Your task to perform on an android device: Empty the shopping cart on ebay.com. Add macbook air to the cart on ebay.com, then select checkout. Image 0: 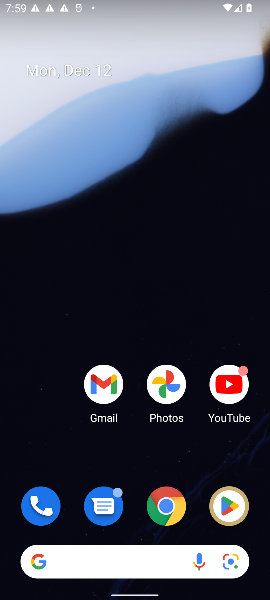
Step 0: click (129, 558)
Your task to perform on an android device: Empty the shopping cart on ebay.com. Add macbook air to the cart on ebay.com, then select checkout. Image 1: 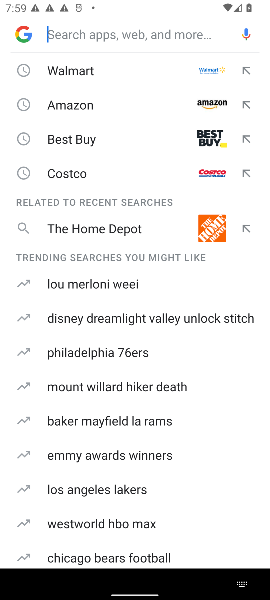
Step 1: type "ebay"
Your task to perform on an android device: Empty the shopping cart on ebay.com. Add macbook air to the cart on ebay.com, then select checkout. Image 2: 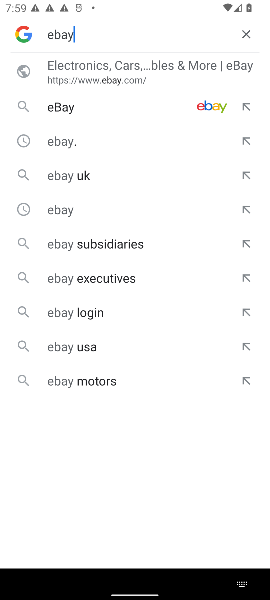
Step 2: click (148, 106)
Your task to perform on an android device: Empty the shopping cart on ebay.com. Add macbook air to the cart on ebay.com, then select checkout. Image 3: 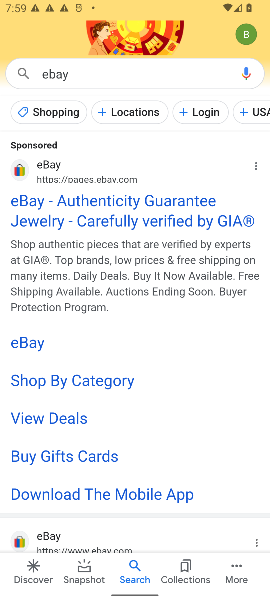
Step 3: click (37, 348)
Your task to perform on an android device: Empty the shopping cart on ebay.com. Add macbook air to the cart on ebay.com, then select checkout. Image 4: 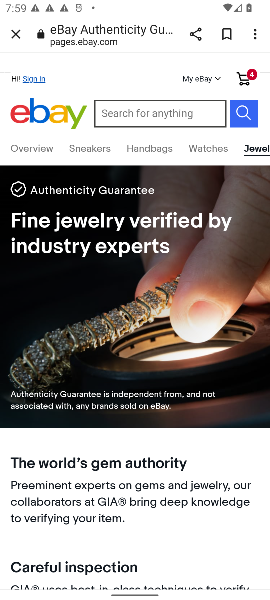
Step 4: click (21, 155)
Your task to perform on an android device: Empty the shopping cart on ebay.com. Add macbook air to the cart on ebay.com, then select checkout. Image 5: 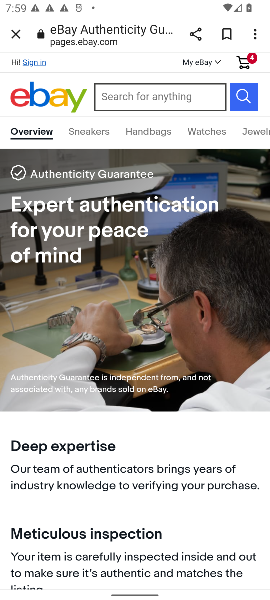
Step 5: click (141, 106)
Your task to perform on an android device: Empty the shopping cart on ebay.com. Add macbook air to the cart on ebay.com, then select checkout. Image 6: 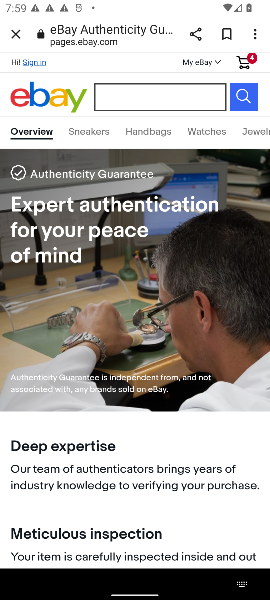
Step 6: type "macbook air"
Your task to perform on an android device: Empty the shopping cart on ebay.com. Add macbook air to the cart on ebay.com, then select checkout. Image 7: 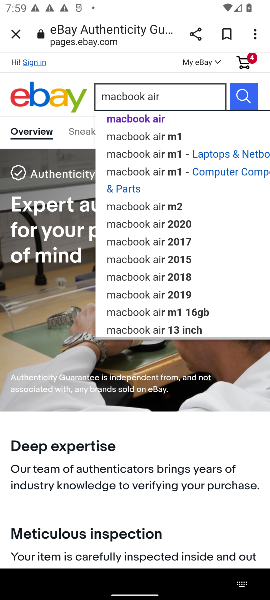
Step 7: click (244, 106)
Your task to perform on an android device: Empty the shopping cart on ebay.com. Add macbook air to the cart on ebay.com, then select checkout. Image 8: 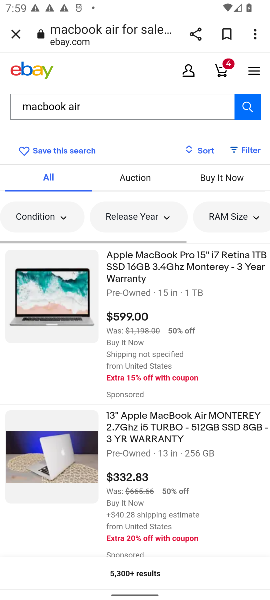
Step 8: click (175, 267)
Your task to perform on an android device: Empty the shopping cart on ebay.com. Add macbook air to the cart on ebay.com, then select checkout. Image 9: 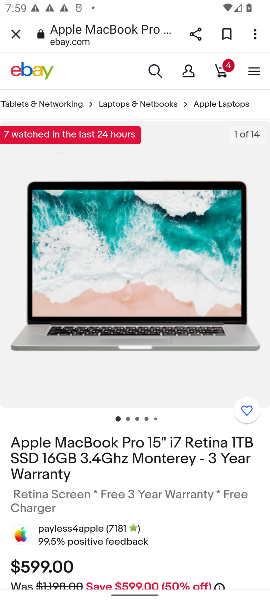
Step 9: click (182, 543)
Your task to perform on an android device: Empty the shopping cart on ebay.com. Add macbook air to the cart on ebay.com, then select checkout. Image 10: 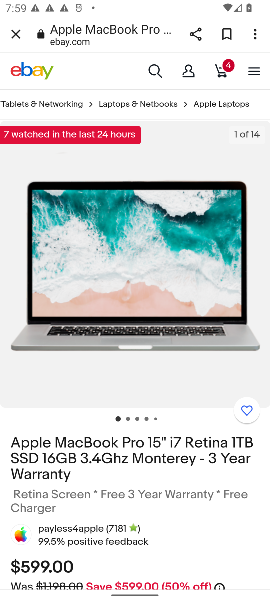
Step 10: drag from (182, 543) to (156, 201)
Your task to perform on an android device: Empty the shopping cart on ebay.com. Add macbook air to the cart on ebay.com, then select checkout. Image 11: 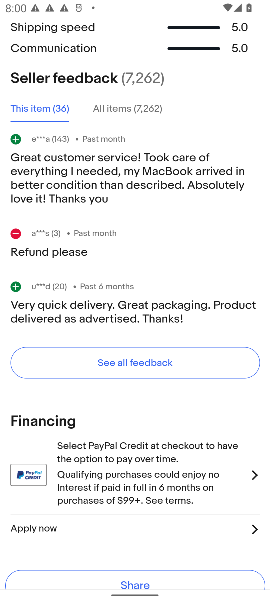
Step 11: drag from (159, 259) to (187, 579)
Your task to perform on an android device: Empty the shopping cart on ebay.com. Add macbook air to the cart on ebay.com, then select checkout. Image 12: 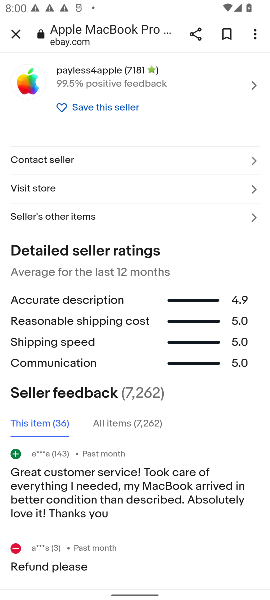
Step 12: drag from (158, 321) to (186, 460)
Your task to perform on an android device: Empty the shopping cart on ebay.com. Add macbook air to the cart on ebay.com, then select checkout. Image 13: 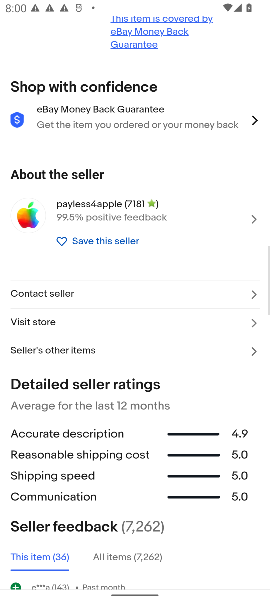
Step 13: drag from (183, 256) to (230, 591)
Your task to perform on an android device: Empty the shopping cart on ebay.com. Add macbook air to the cart on ebay.com, then select checkout. Image 14: 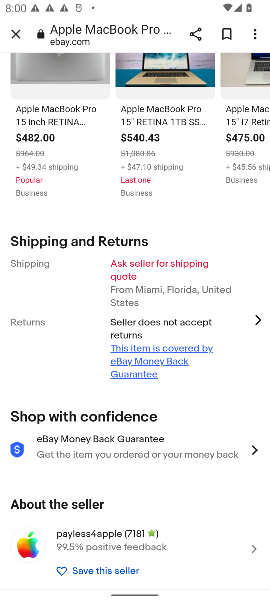
Step 14: drag from (186, 421) to (223, 536)
Your task to perform on an android device: Empty the shopping cart on ebay.com. Add macbook air to the cart on ebay.com, then select checkout. Image 15: 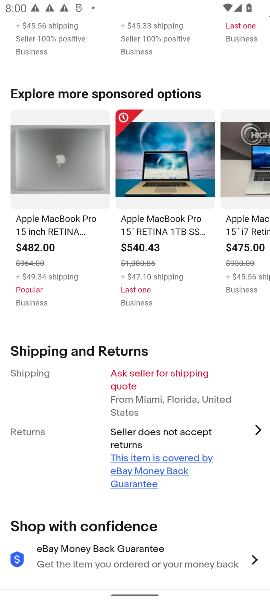
Step 15: drag from (203, 97) to (246, 148)
Your task to perform on an android device: Empty the shopping cart on ebay.com. Add macbook air to the cart on ebay.com, then select checkout. Image 16: 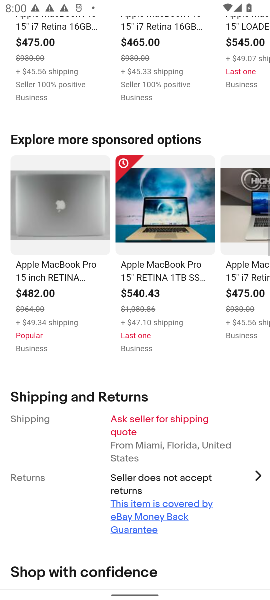
Step 16: drag from (181, 107) to (239, 540)
Your task to perform on an android device: Empty the shopping cart on ebay.com. Add macbook air to the cart on ebay.com, then select checkout. Image 17: 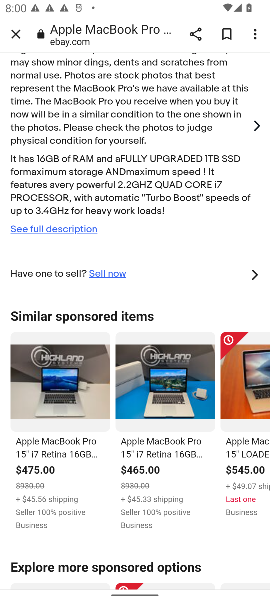
Step 17: drag from (116, 111) to (175, 571)
Your task to perform on an android device: Empty the shopping cart on ebay.com. Add macbook air to the cart on ebay.com, then select checkout. Image 18: 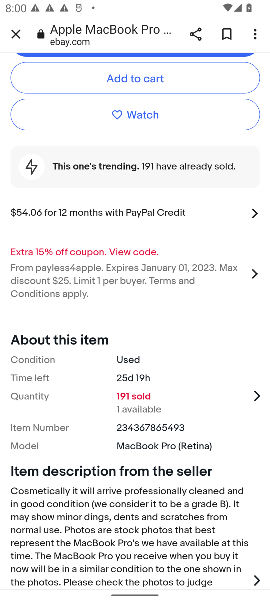
Step 18: drag from (170, 209) to (201, 551)
Your task to perform on an android device: Empty the shopping cart on ebay.com. Add macbook air to the cart on ebay.com, then select checkout. Image 19: 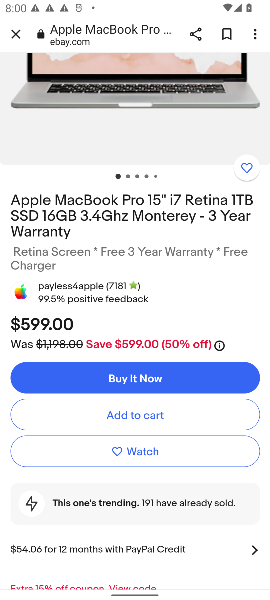
Step 19: drag from (122, 149) to (213, 578)
Your task to perform on an android device: Empty the shopping cart on ebay.com. Add macbook air to the cart on ebay.com, then select checkout. Image 20: 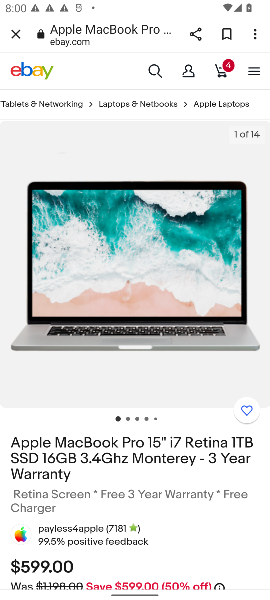
Step 20: click (214, 70)
Your task to perform on an android device: Empty the shopping cart on ebay.com. Add macbook air to the cart on ebay.com, then select checkout. Image 21: 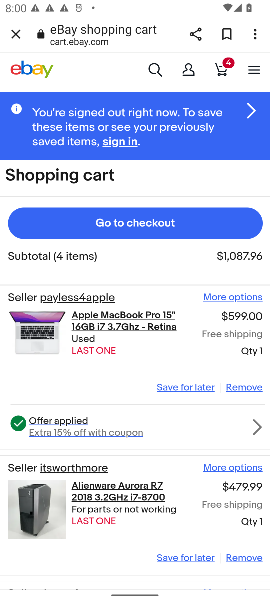
Step 21: click (238, 388)
Your task to perform on an android device: Empty the shopping cart on ebay.com. Add macbook air to the cart on ebay.com, then select checkout. Image 22: 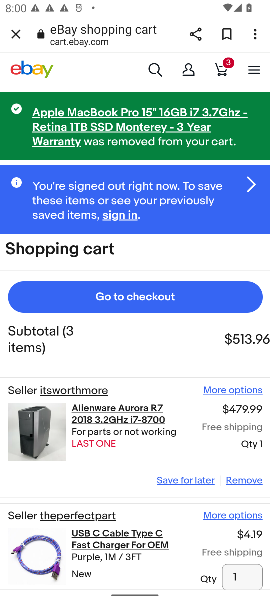
Step 22: click (243, 480)
Your task to perform on an android device: Empty the shopping cart on ebay.com. Add macbook air to the cart on ebay.com, then select checkout. Image 23: 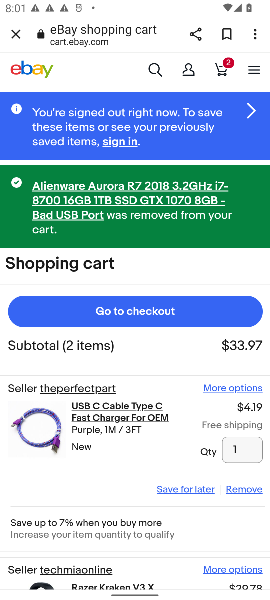
Step 23: click (240, 494)
Your task to perform on an android device: Empty the shopping cart on ebay.com. Add macbook air to the cart on ebay.com, then select checkout. Image 24: 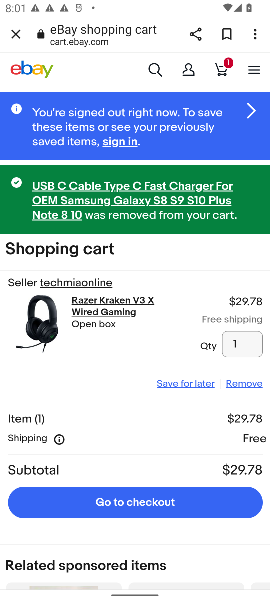
Step 24: click (243, 380)
Your task to perform on an android device: Empty the shopping cart on ebay.com. Add macbook air to the cart on ebay.com, then select checkout. Image 25: 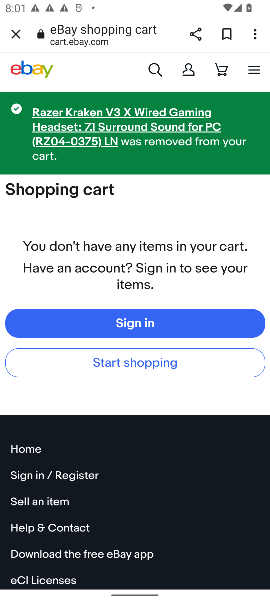
Step 25: click (149, 68)
Your task to perform on an android device: Empty the shopping cart on ebay.com. Add macbook air to the cart on ebay.com, then select checkout. Image 26: 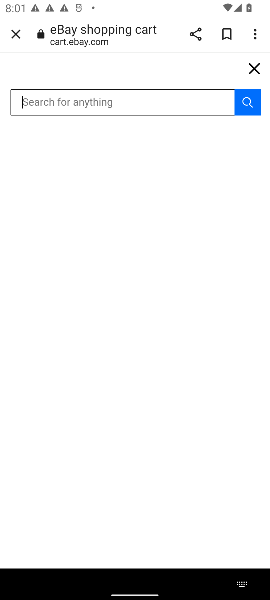
Step 26: type "macbook air"
Your task to perform on an android device: Empty the shopping cart on ebay.com. Add macbook air to the cart on ebay.com, then select checkout. Image 27: 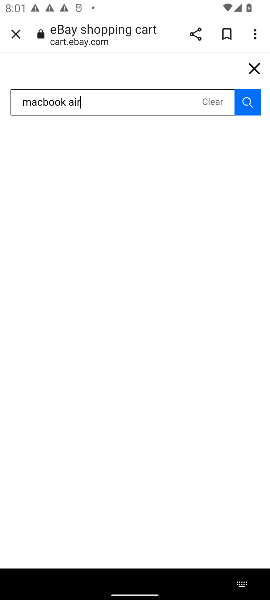
Step 27: click (251, 115)
Your task to perform on an android device: Empty the shopping cart on ebay.com. Add macbook air to the cart on ebay.com, then select checkout. Image 28: 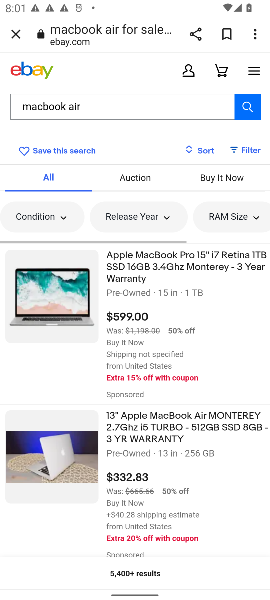
Step 28: click (138, 259)
Your task to perform on an android device: Empty the shopping cart on ebay.com. Add macbook air to the cart on ebay.com, then select checkout. Image 29: 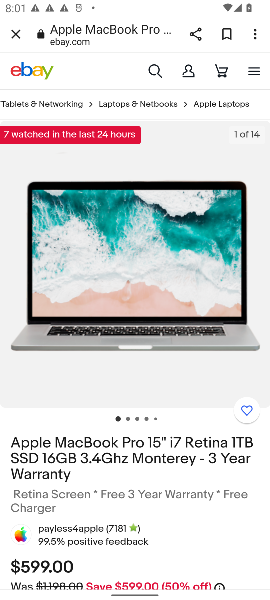
Step 29: drag from (192, 516) to (184, 308)
Your task to perform on an android device: Empty the shopping cart on ebay.com. Add macbook air to the cart on ebay.com, then select checkout. Image 30: 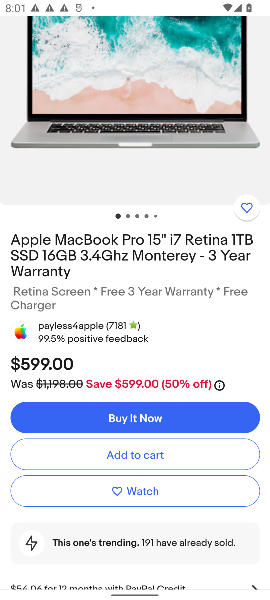
Step 30: click (139, 451)
Your task to perform on an android device: Empty the shopping cart on ebay.com. Add macbook air to the cart on ebay.com, then select checkout. Image 31: 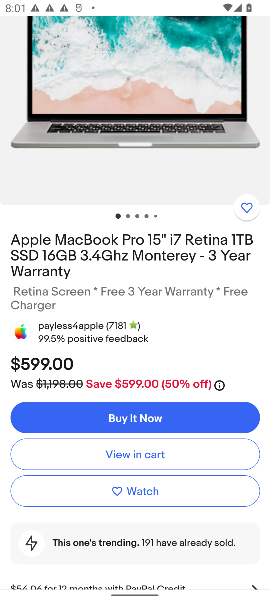
Step 31: task complete